Your task to perform on an android device: turn on translation in the chrome app Image 0: 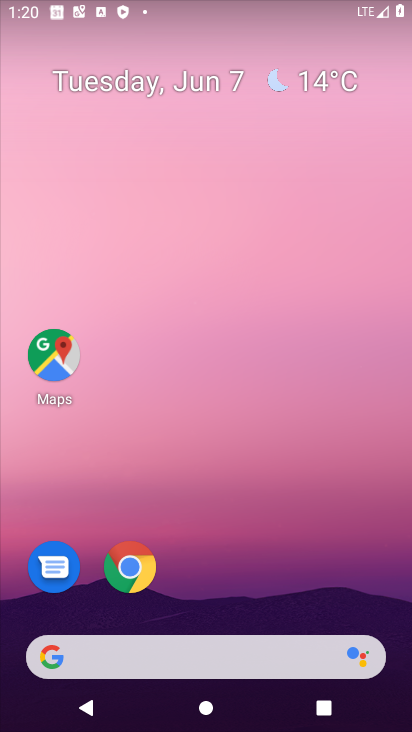
Step 0: drag from (231, 637) to (229, 58)
Your task to perform on an android device: turn on translation in the chrome app Image 1: 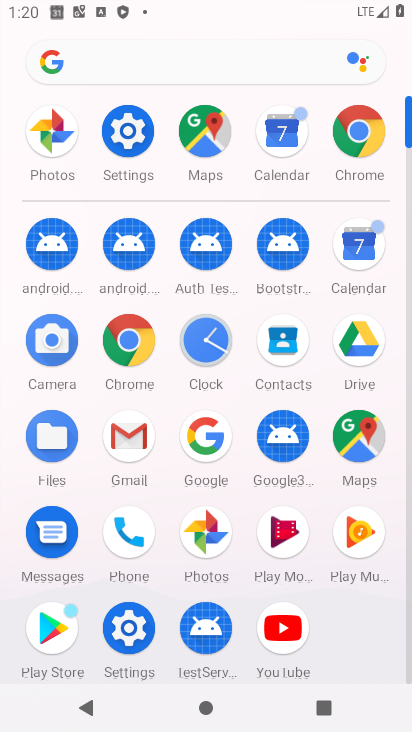
Step 1: click (123, 328)
Your task to perform on an android device: turn on translation in the chrome app Image 2: 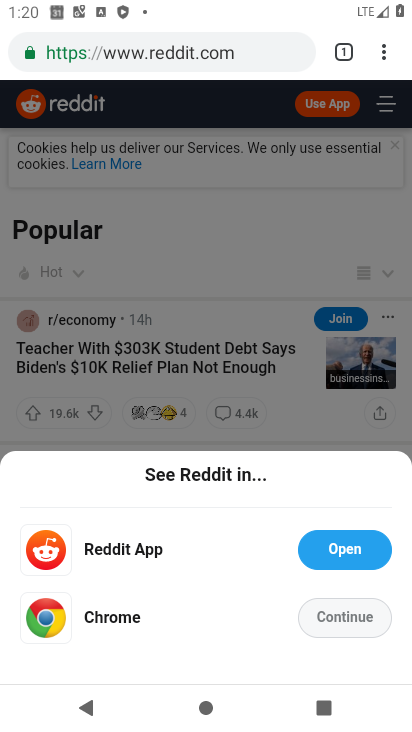
Step 2: click (388, 49)
Your task to perform on an android device: turn on translation in the chrome app Image 3: 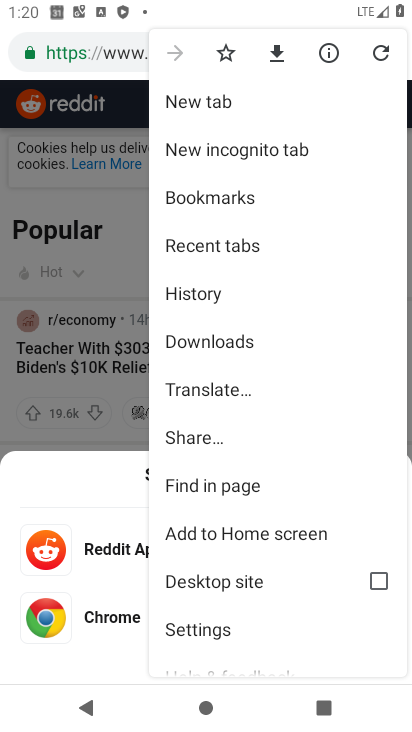
Step 3: click (205, 623)
Your task to perform on an android device: turn on translation in the chrome app Image 4: 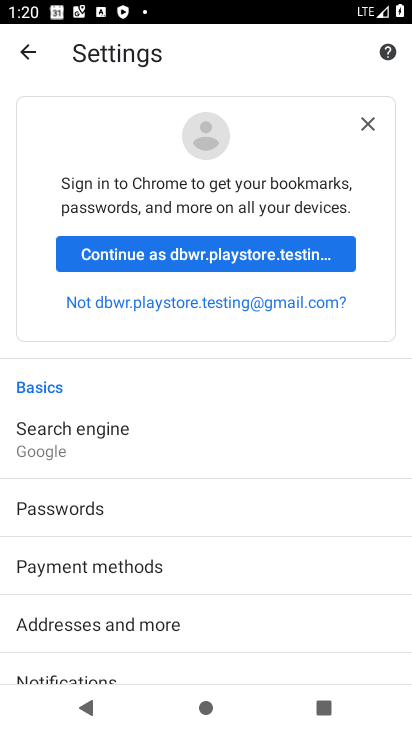
Step 4: drag from (207, 659) to (242, 128)
Your task to perform on an android device: turn on translation in the chrome app Image 5: 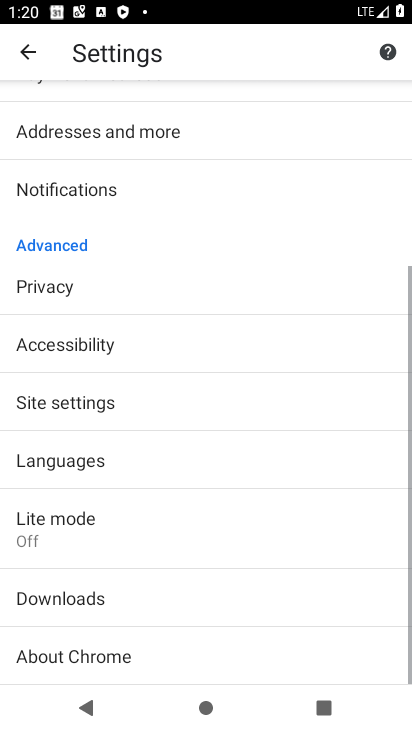
Step 5: click (103, 462)
Your task to perform on an android device: turn on translation in the chrome app Image 6: 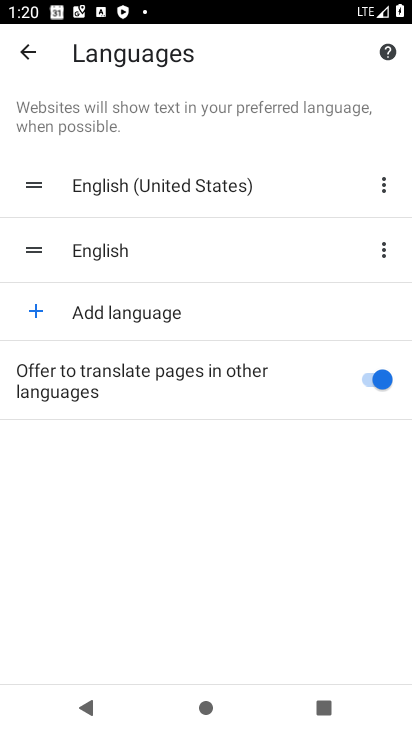
Step 6: task complete